Your task to perform on an android device: empty trash in google photos Image 0: 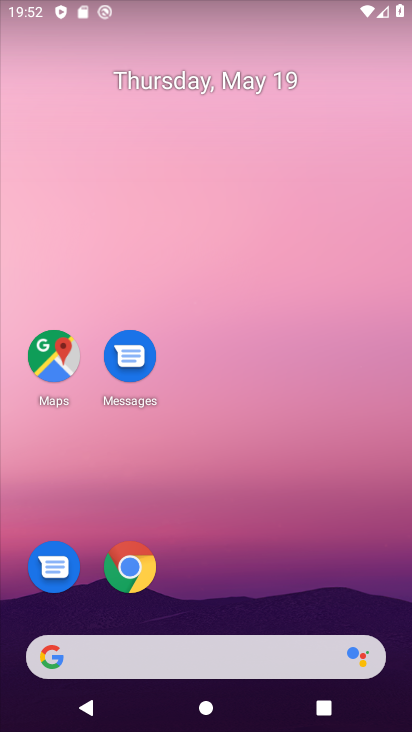
Step 0: drag from (228, 632) to (175, 207)
Your task to perform on an android device: empty trash in google photos Image 1: 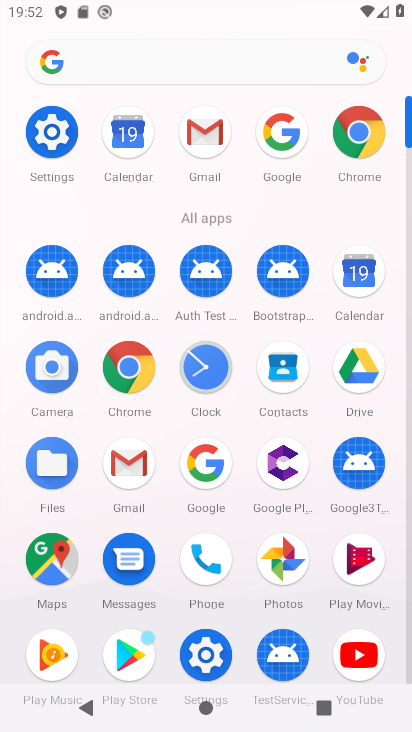
Step 1: click (282, 564)
Your task to perform on an android device: empty trash in google photos Image 2: 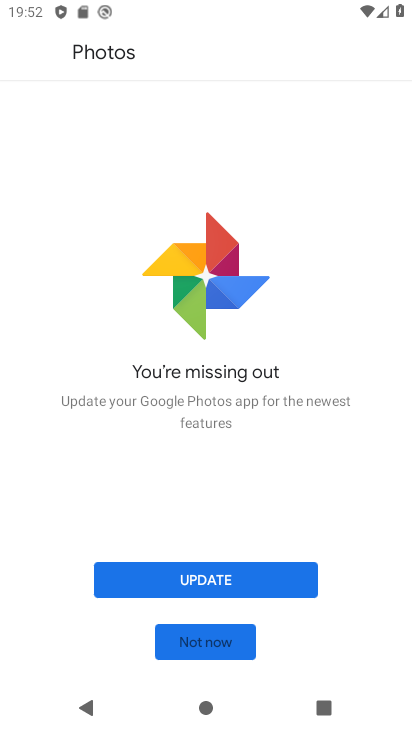
Step 2: click (228, 635)
Your task to perform on an android device: empty trash in google photos Image 3: 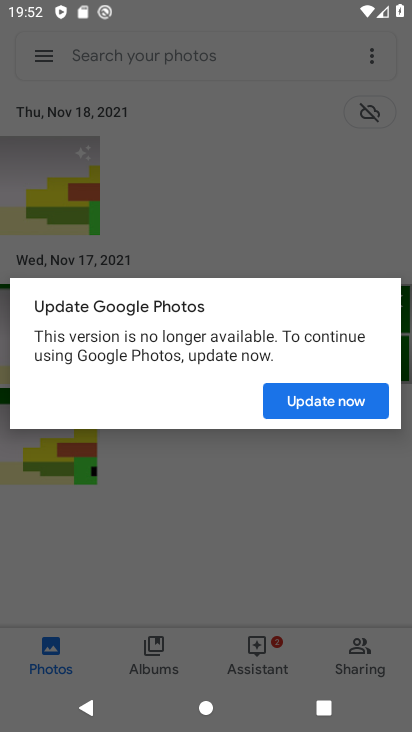
Step 3: click (270, 523)
Your task to perform on an android device: empty trash in google photos Image 4: 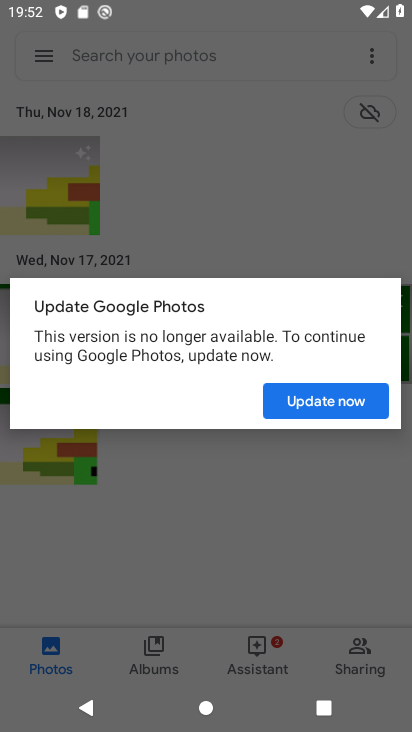
Step 4: click (338, 385)
Your task to perform on an android device: empty trash in google photos Image 5: 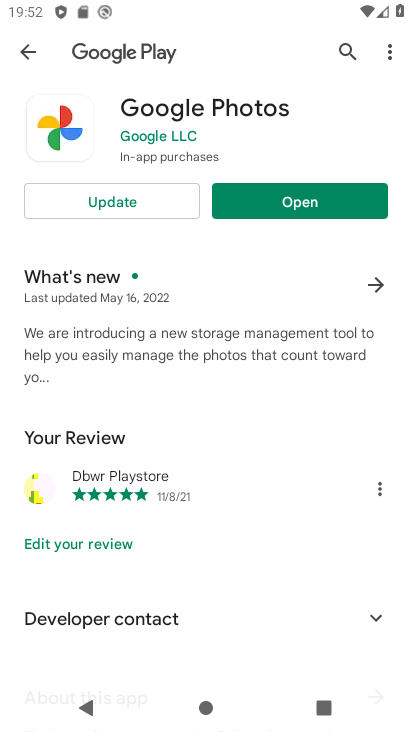
Step 5: click (282, 208)
Your task to perform on an android device: empty trash in google photos Image 6: 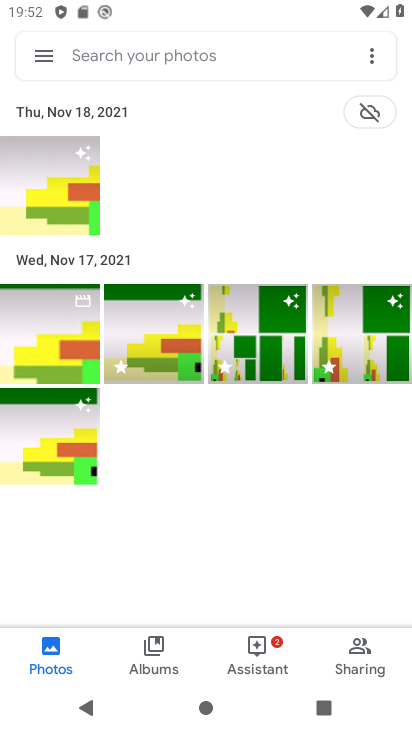
Step 6: click (29, 38)
Your task to perform on an android device: empty trash in google photos Image 7: 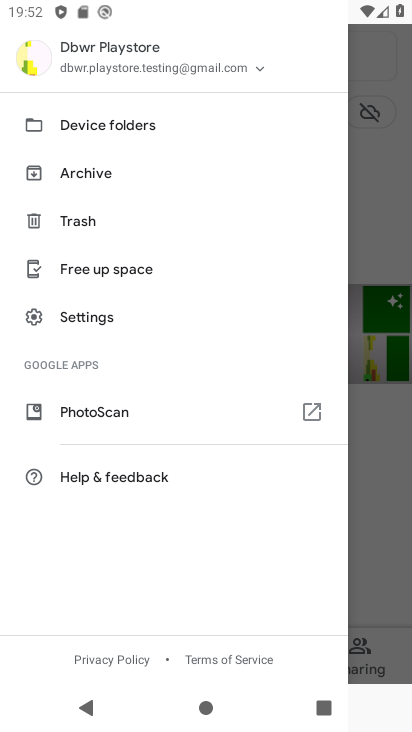
Step 7: click (93, 219)
Your task to perform on an android device: empty trash in google photos Image 8: 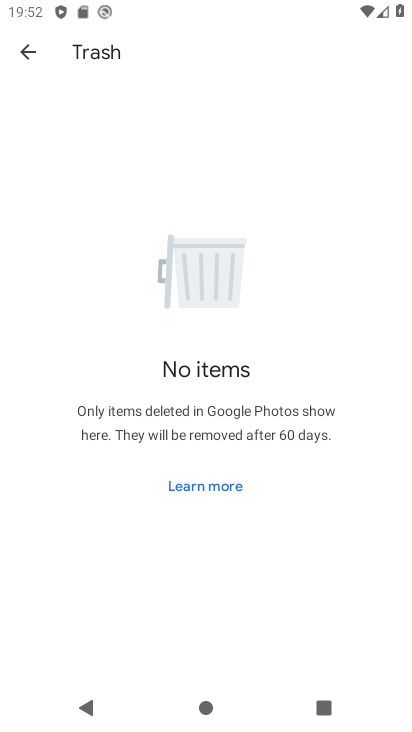
Step 8: task complete